Your task to perform on an android device: check out phone information Image 0: 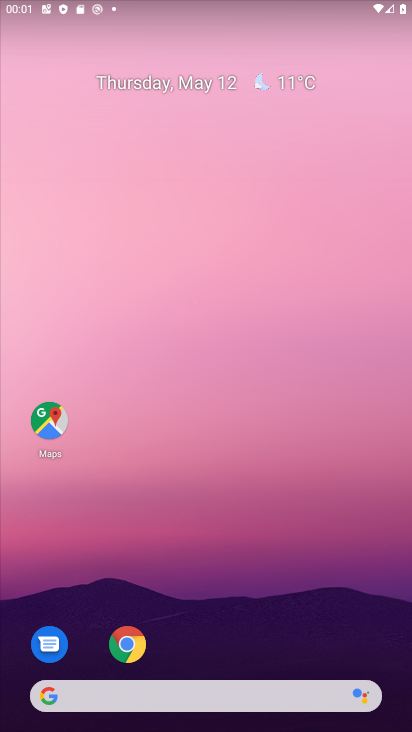
Step 0: press home button
Your task to perform on an android device: check out phone information Image 1: 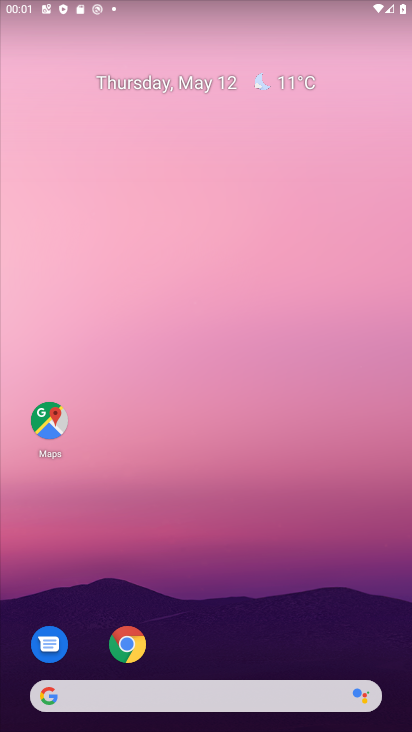
Step 1: drag from (219, 655) to (239, 224)
Your task to perform on an android device: check out phone information Image 2: 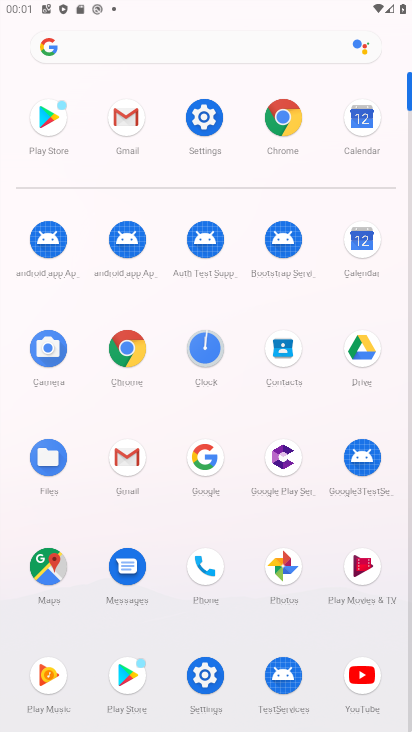
Step 2: click (212, 668)
Your task to perform on an android device: check out phone information Image 3: 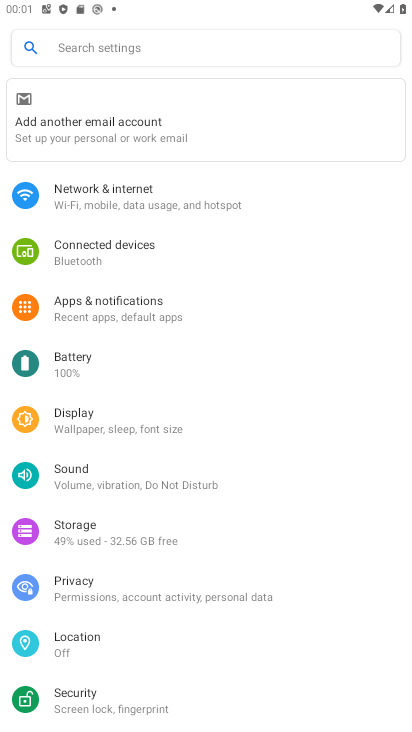
Step 3: drag from (151, 697) to (199, 130)
Your task to perform on an android device: check out phone information Image 4: 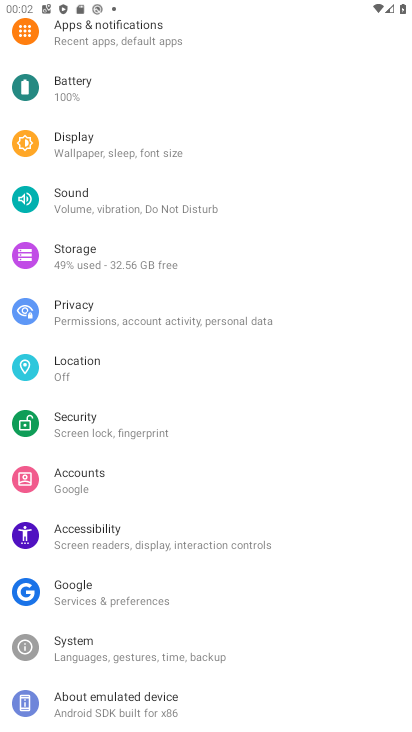
Step 4: drag from (210, 683) to (265, 126)
Your task to perform on an android device: check out phone information Image 5: 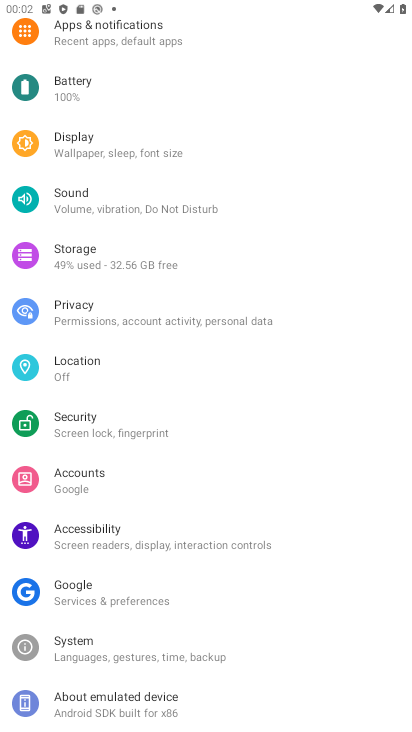
Step 5: click (176, 710)
Your task to perform on an android device: check out phone information Image 6: 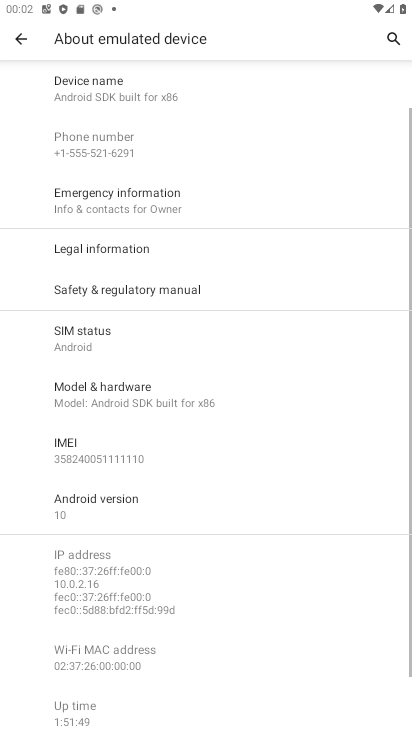
Step 6: task complete